Your task to perform on an android device: turn off location Image 0: 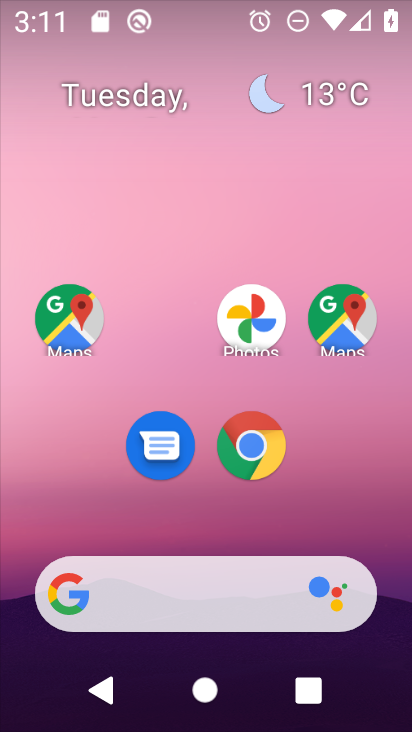
Step 0: drag from (398, 563) to (390, 239)
Your task to perform on an android device: turn off location Image 1: 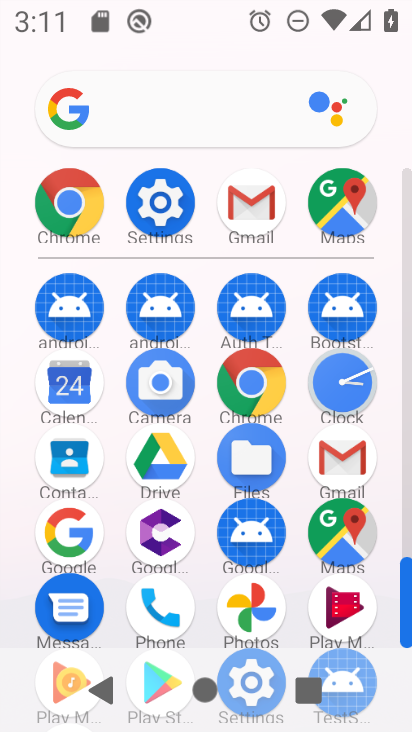
Step 1: drag from (390, 517) to (382, 287)
Your task to perform on an android device: turn off location Image 2: 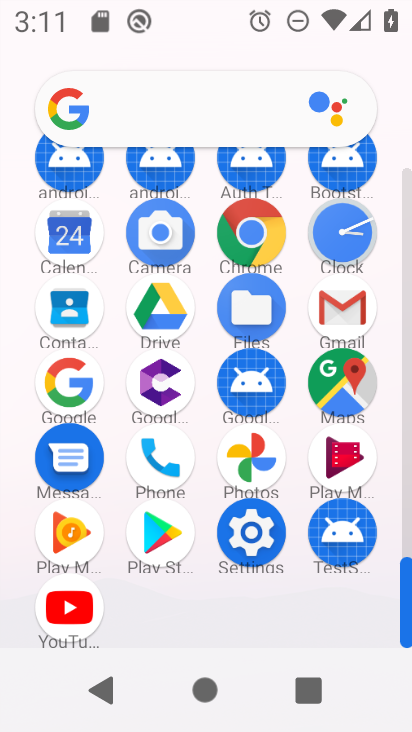
Step 2: click (245, 548)
Your task to perform on an android device: turn off location Image 3: 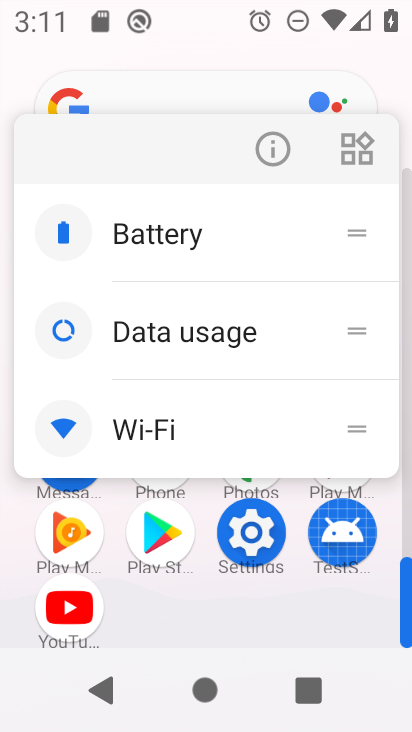
Step 3: click (244, 544)
Your task to perform on an android device: turn off location Image 4: 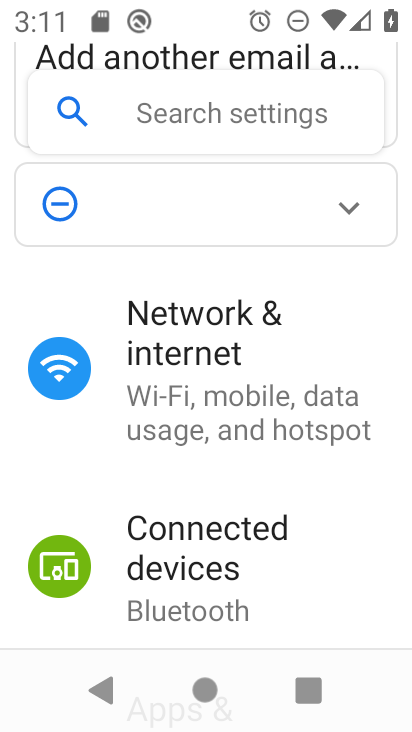
Step 4: drag from (353, 582) to (338, 423)
Your task to perform on an android device: turn off location Image 5: 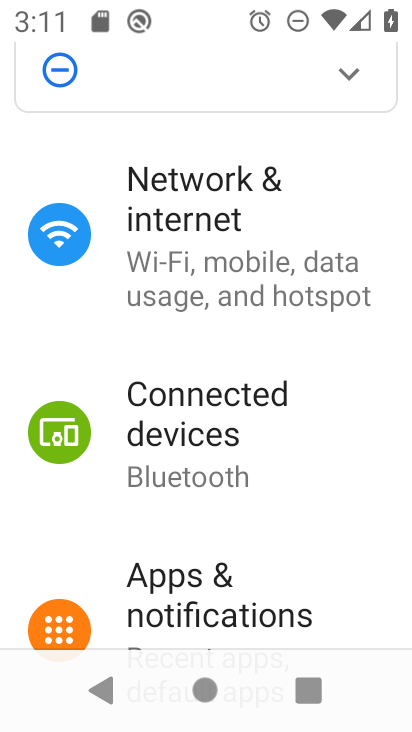
Step 5: drag from (350, 512) to (352, 399)
Your task to perform on an android device: turn off location Image 6: 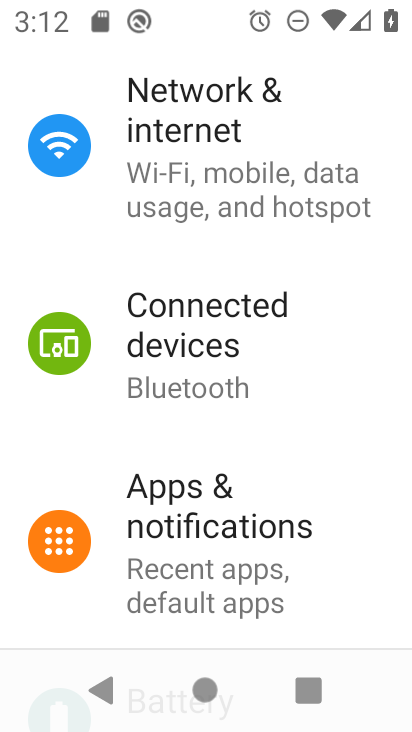
Step 6: drag from (347, 612) to (351, 494)
Your task to perform on an android device: turn off location Image 7: 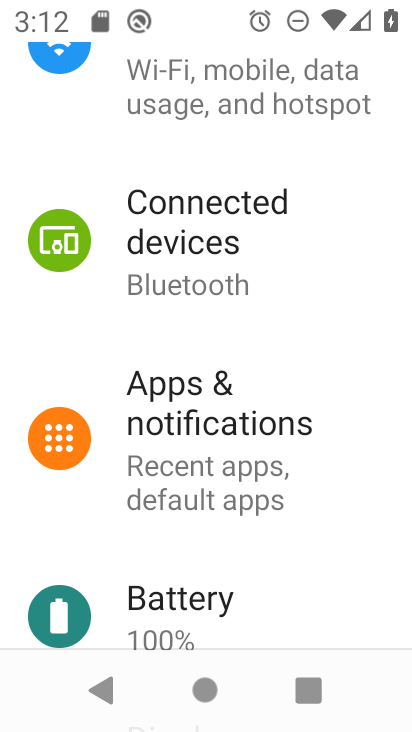
Step 7: drag from (334, 599) to (341, 490)
Your task to perform on an android device: turn off location Image 8: 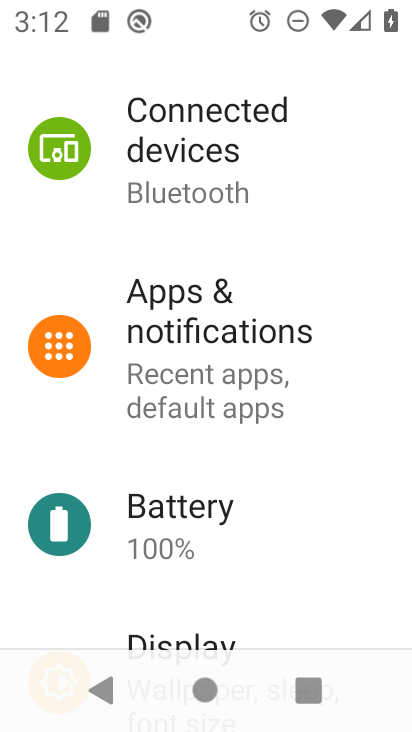
Step 8: drag from (344, 594) to (345, 483)
Your task to perform on an android device: turn off location Image 9: 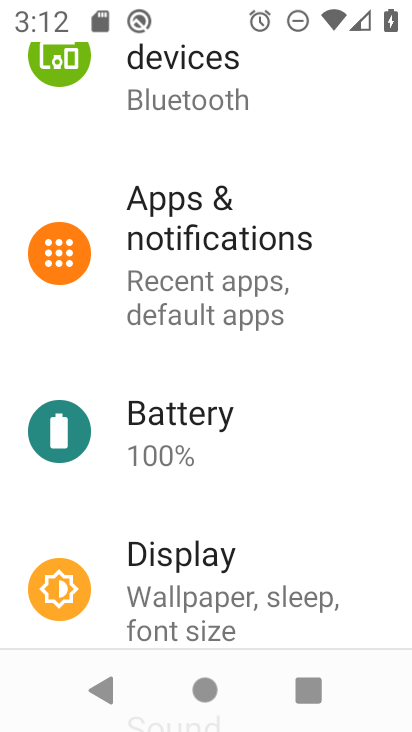
Step 9: drag from (362, 623) to (364, 544)
Your task to perform on an android device: turn off location Image 10: 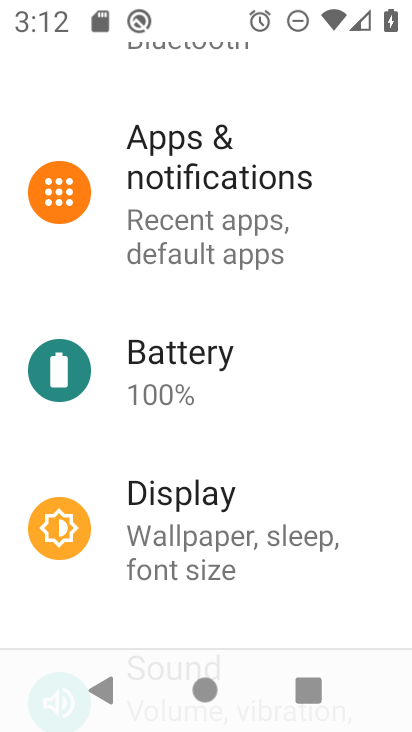
Step 10: drag from (357, 622) to (358, 493)
Your task to perform on an android device: turn off location Image 11: 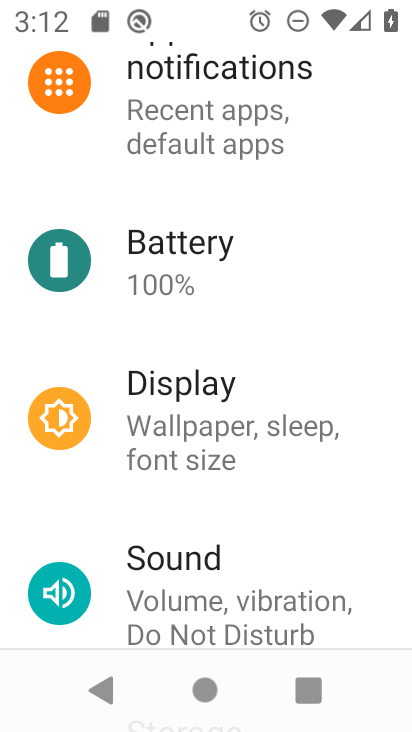
Step 11: drag from (353, 632) to (357, 495)
Your task to perform on an android device: turn off location Image 12: 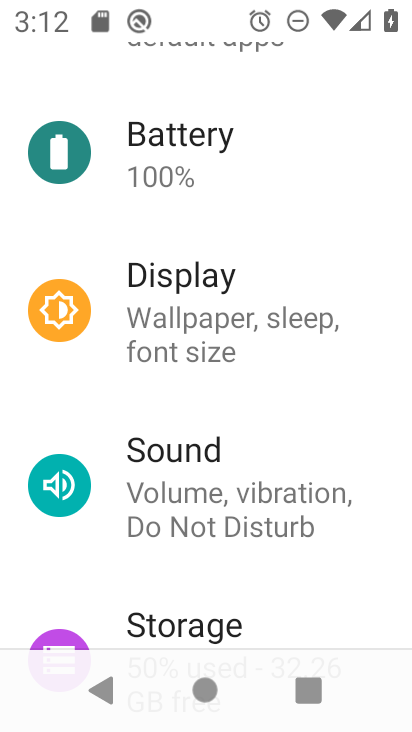
Step 12: drag from (377, 569) to (388, 443)
Your task to perform on an android device: turn off location Image 13: 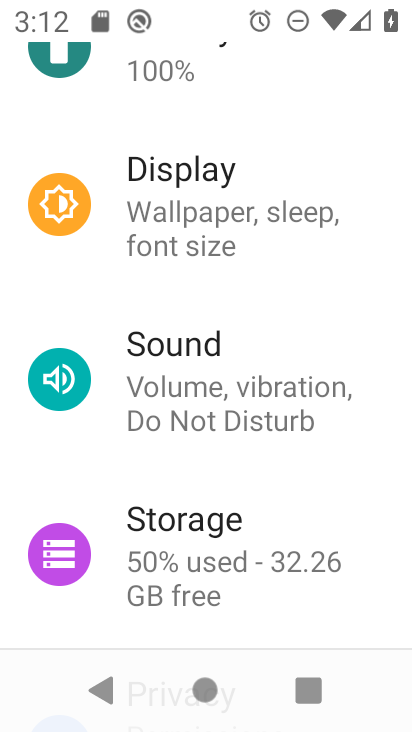
Step 13: drag from (379, 592) to (385, 476)
Your task to perform on an android device: turn off location Image 14: 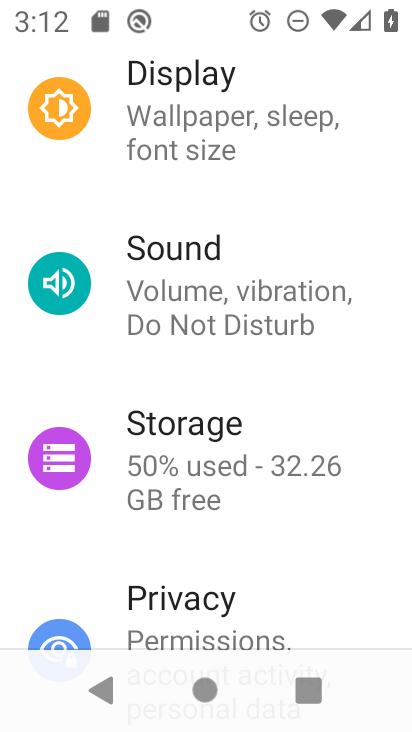
Step 14: drag from (358, 589) to (368, 458)
Your task to perform on an android device: turn off location Image 15: 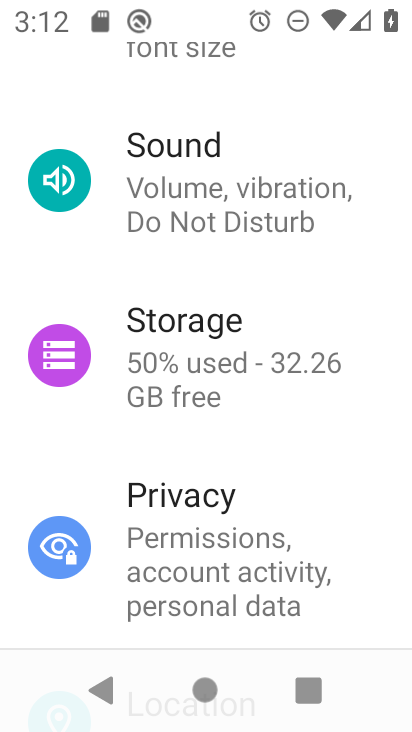
Step 15: drag from (366, 588) to (370, 464)
Your task to perform on an android device: turn off location Image 16: 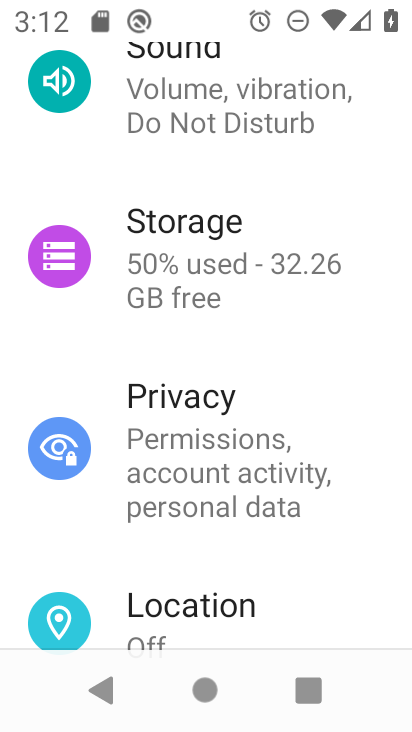
Step 16: drag from (363, 601) to (368, 476)
Your task to perform on an android device: turn off location Image 17: 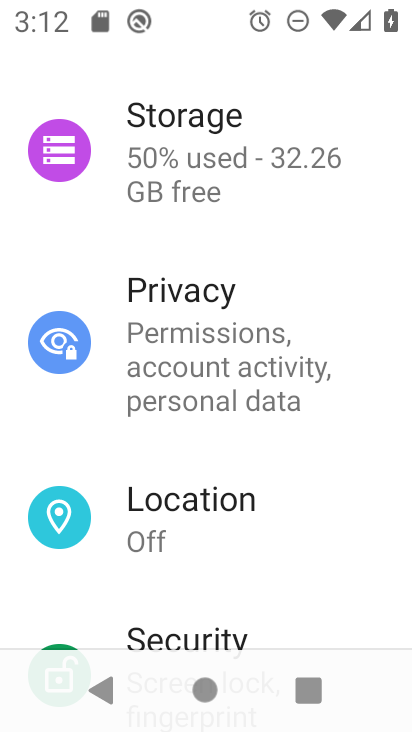
Step 17: click (245, 535)
Your task to perform on an android device: turn off location Image 18: 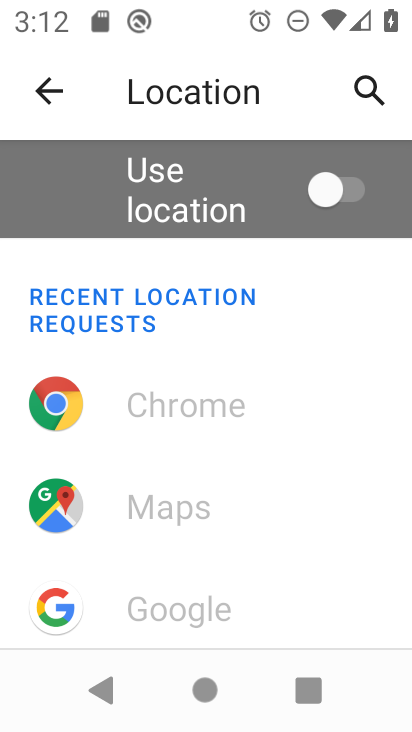
Step 18: task complete